Your task to perform on an android device: Empty the shopping cart on newegg.com. Search for dell xps on newegg.com, select the first entry, and add it to the cart. Image 0: 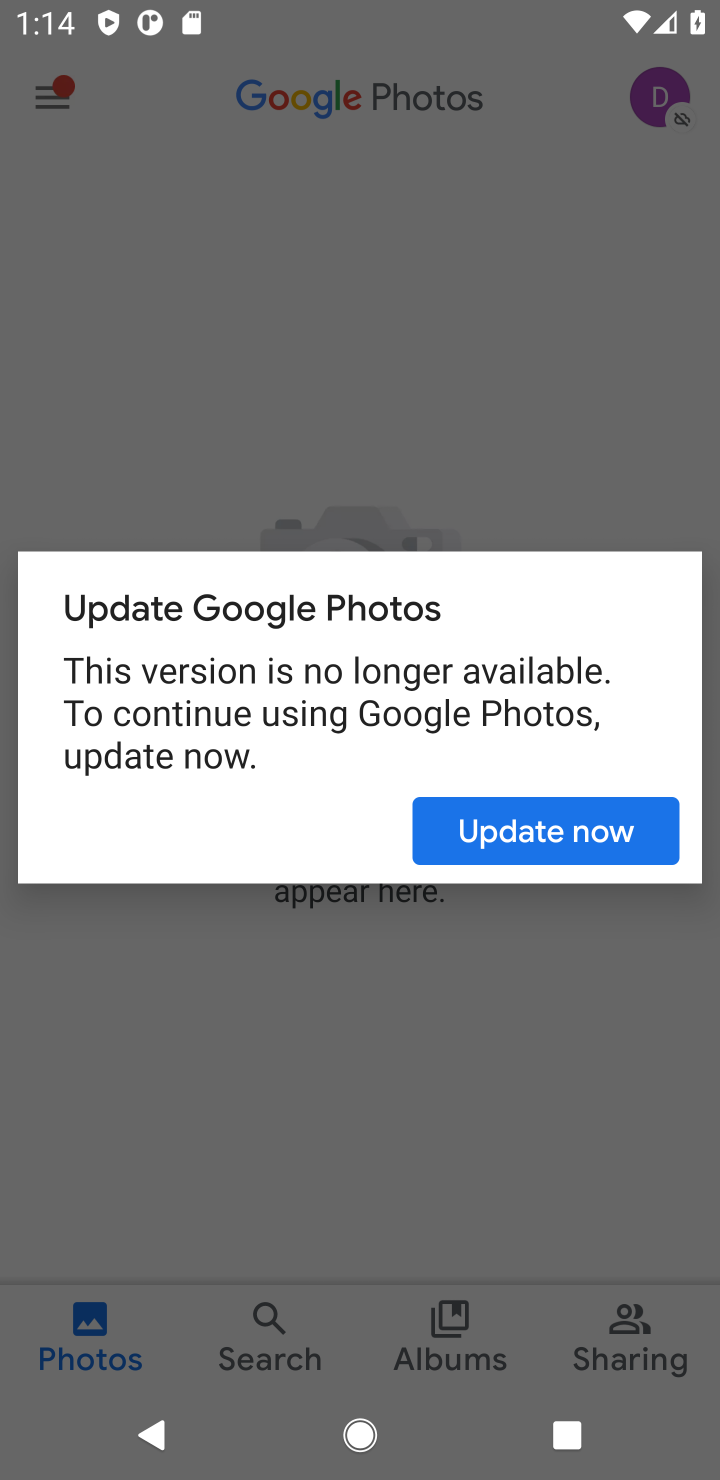
Step 0: task complete